Your task to perform on an android device: Go to Yahoo.com Image 0: 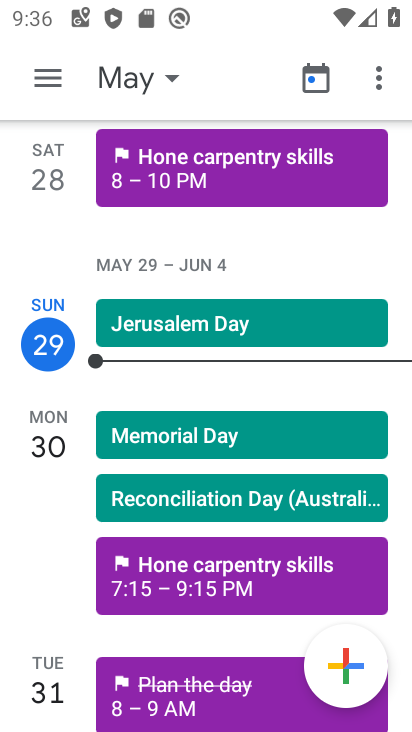
Step 0: press home button
Your task to perform on an android device: Go to Yahoo.com Image 1: 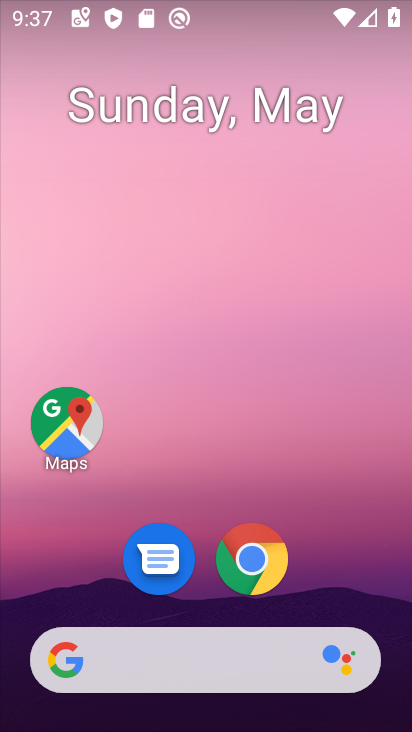
Step 1: click (67, 668)
Your task to perform on an android device: Go to Yahoo.com Image 2: 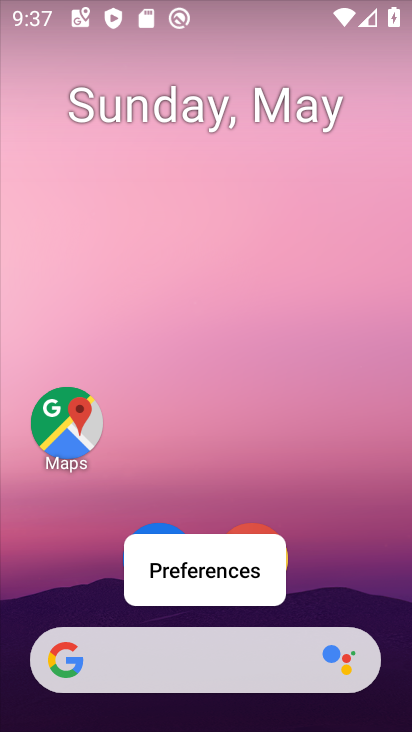
Step 2: click (67, 668)
Your task to perform on an android device: Go to Yahoo.com Image 3: 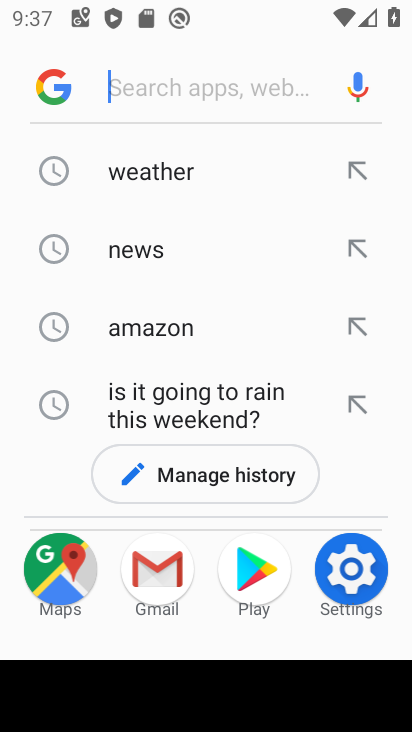
Step 3: type "Yahoo.com"
Your task to perform on an android device: Go to Yahoo.com Image 4: 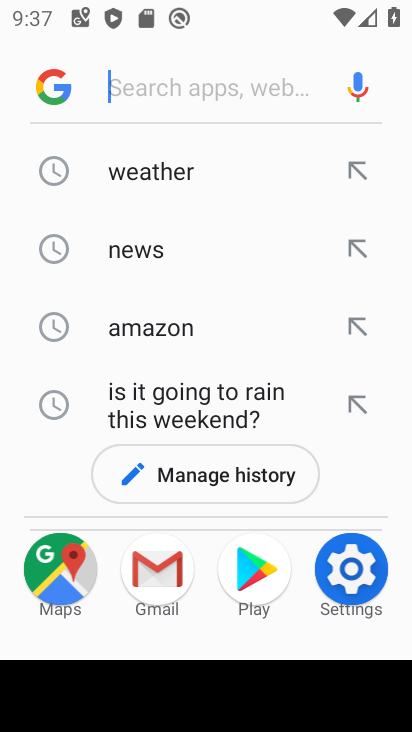
Step 4: click (209, 83)
Your task to perform on an android device: Go to Yahoo.com Image 5: 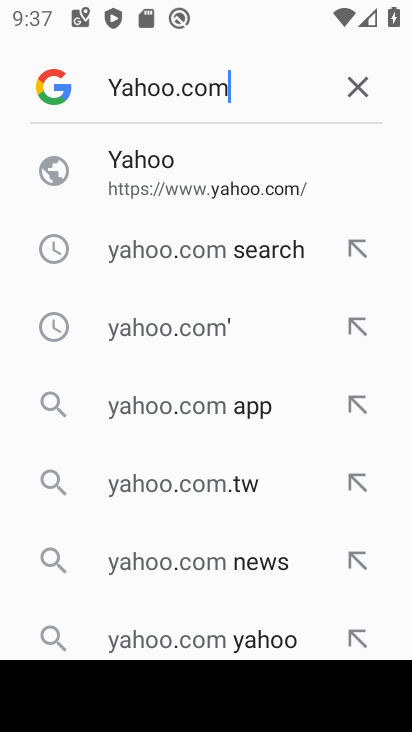
Step 5: click (136, 171)
Your task to perform on an android device: Go to Yahoo.com Image 6: 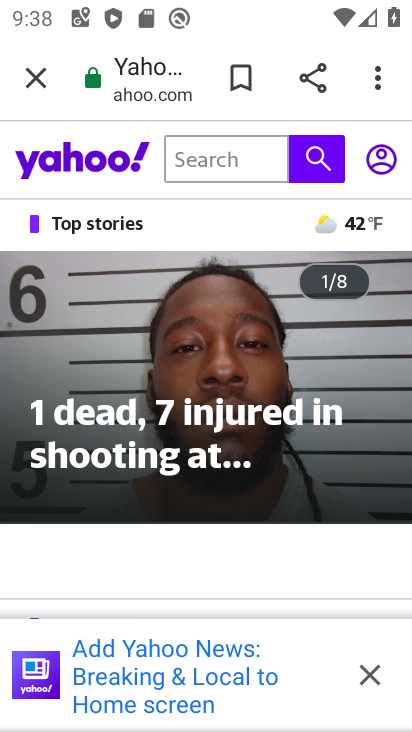
Step 6: task complete